Your task to perform on an android device: Open Google Chrome and click the shortcut for Amazon.com Image 0: 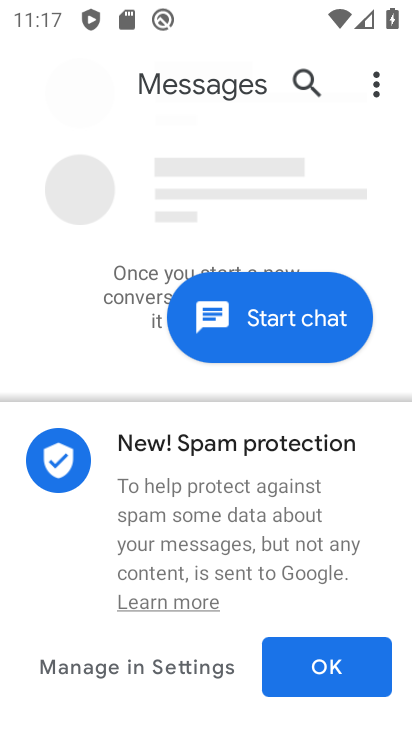
Step 0: press home button
Your task to perform on an android device: Open Google Chrome and click the shortcut for Amazon.com Image 1: 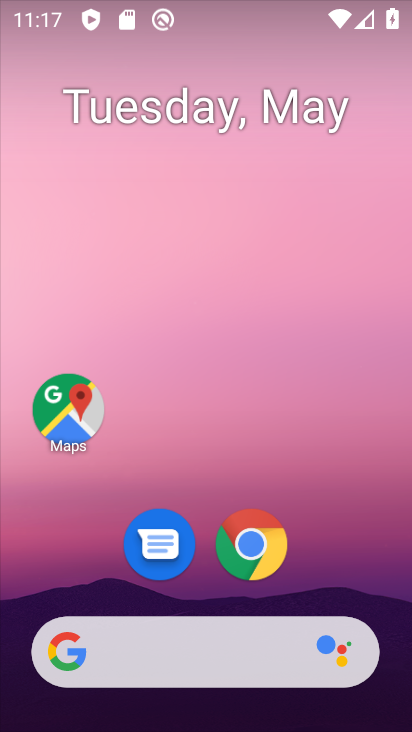
Step 1: click (264, 547)
Your task to perform on an android device: Open Google Chrome and click the shortcut for Amazon.com Image 2: 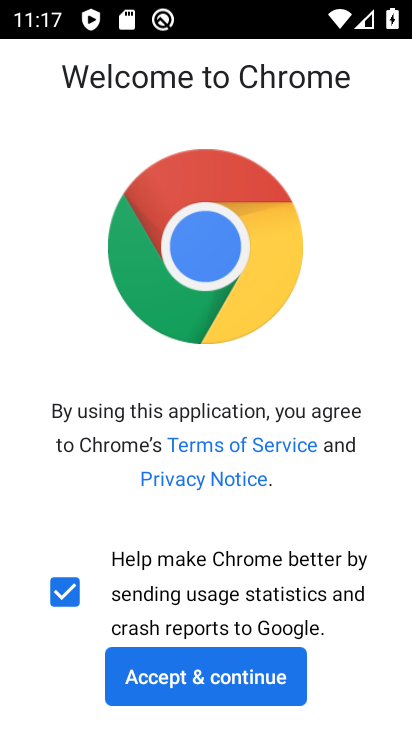
Step 2: click (258, 670)
Your task to perform on an android device: Open Google Chrome and click the shortcut for Amazon.com Image 3: 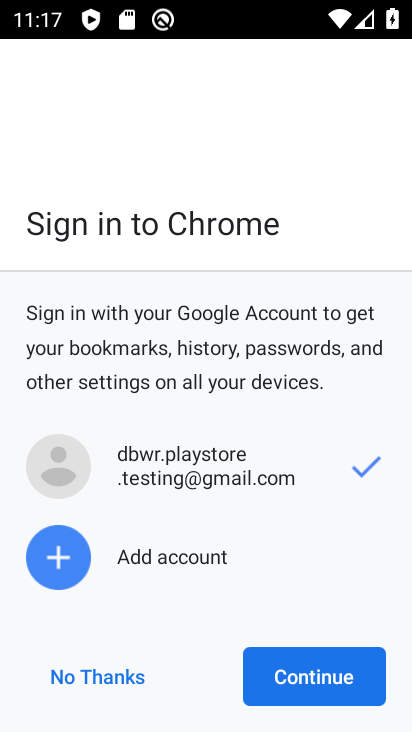
Step 3: click (289, 673)
Your task to perform on an android device: Open Google Chrome and click the shortcut for Amazon.com Image 4: 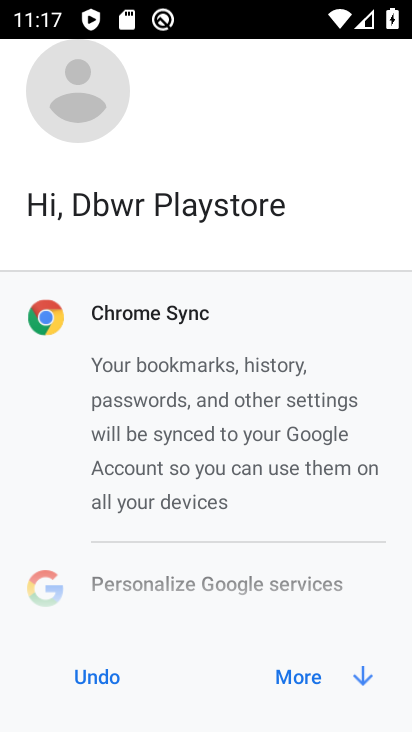
Step 4: click (289, 673)
Your task to perform on an android device: Open Google Chrome and click the shortcut for Amazon.com Image 5: 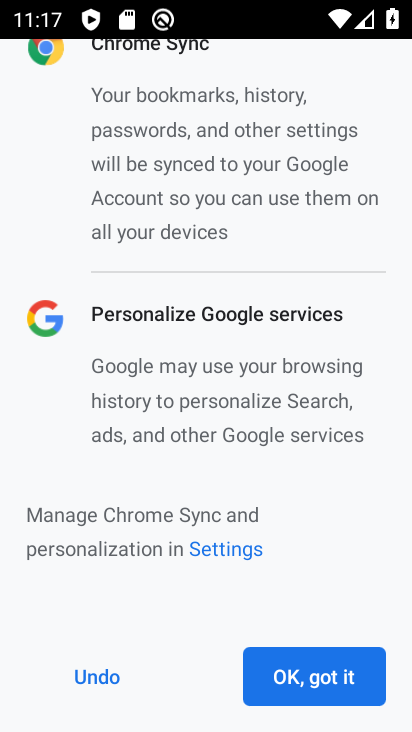
Step 5: click (355, 672)
Your task to perform on an android device: Open Google Chrome and click the shortcut for Amazon.com Image 6: 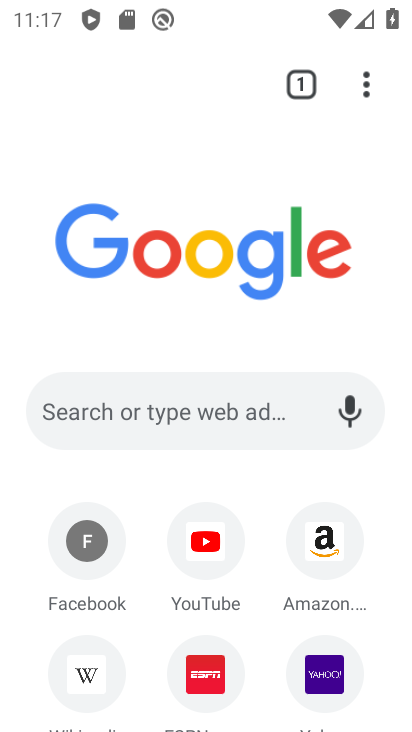
Step 6: click (302, 535)
Your task to perform on an android device: Open Google Chrome and click the shortcut for Amazon.com Image 7: 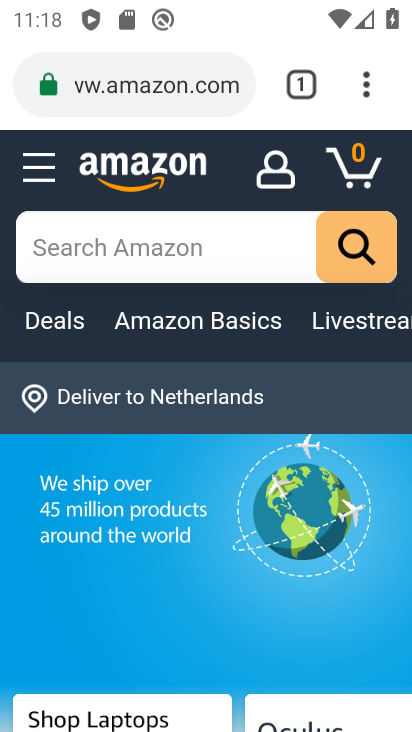
Step 7: task complete